Your task to perform on an android device: Search for corsair k70 on walmart.com, select the first entry, and add it to the cart. Image 0: 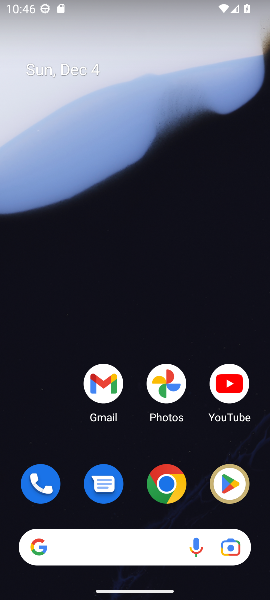
Step 0: click (160, 491)
Your task to perform on an android device: Search for corsair k70 on walmart.com, select the first entry, and add it to the cart. Image 1: 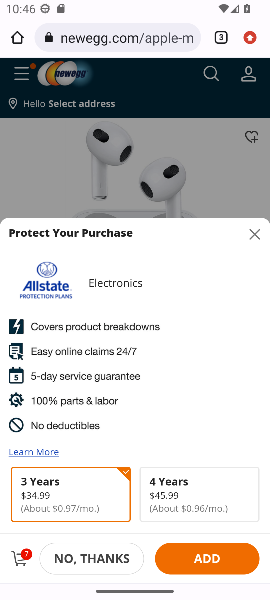
Step 1: click (104, 48)
Your task to perform on an android device: Search for corsair k70 on walmart.com, select the first entry, and add it to the cart. Image 2: 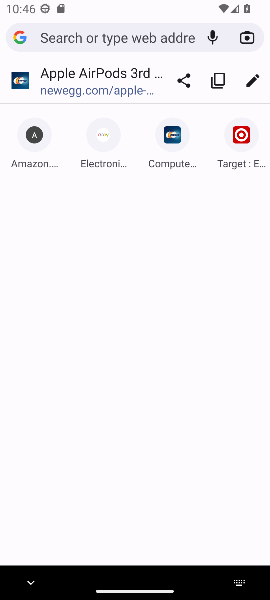
Step 2: type "walmart.com"
Your task to perform on an android device: Search for corsair k70 on walmart.com, select the first entry, and add it to the cart. Image 3: 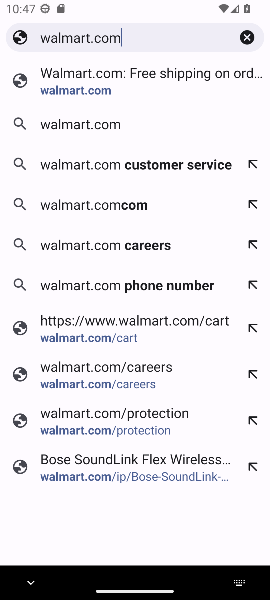
Step 3: click (74, 96)
Your task to perform on an android device: Search for corsair k70 on walmart.com, select the first entry, and add it to the cart. Image 4: 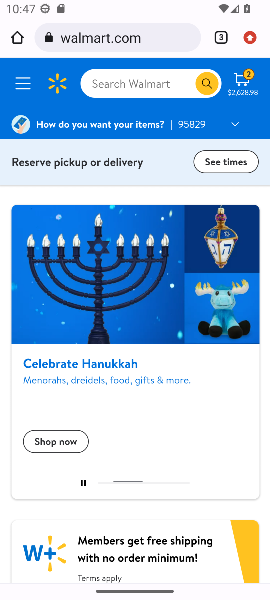
Step 4: click (116, 78)
Your task to perform on an android device: Search for corsair k70 on walmart.com, select the first entry, and add it to the cart. Image 5: 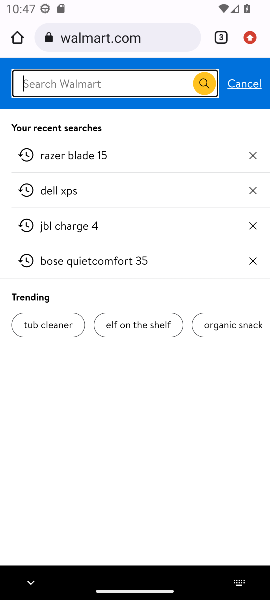
Step 5: type "corsair k70"
Your task to perform on an android device: Search for corsair k70 on walmart.com, select the first entry, and add it to the cart. Image 6: 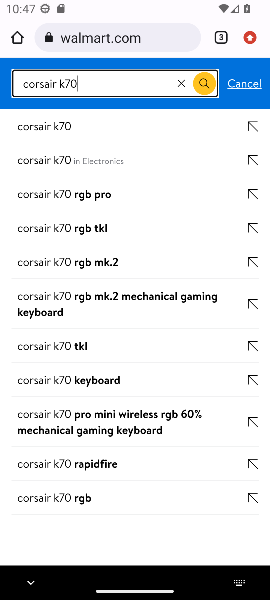
Step 6: click (13, 133)
Your task to perform on an android device: Search for corsair k70 on walmart.com, select the first entry, and add it to the cart. Image 7: 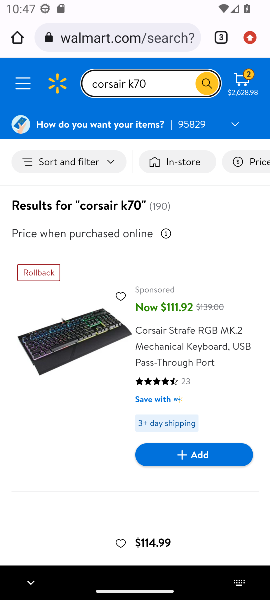
Step 7: task complete